Your task to perform on an android device: What is the news today? Image 0: 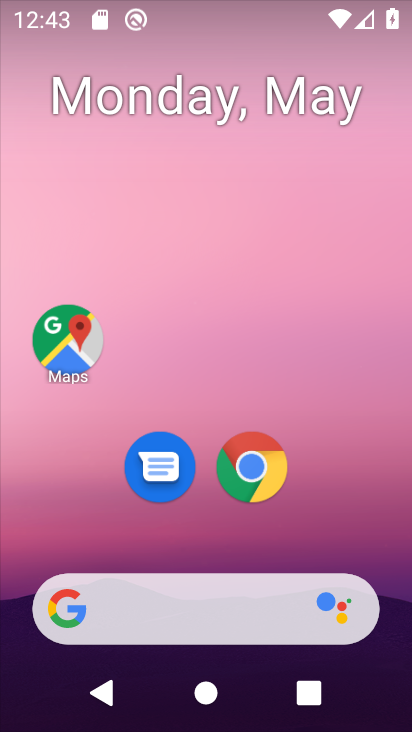
Step 0: drag from (197, 512) to (18, 639)
Your task to perform on an android device: What is the news today? Image 1: 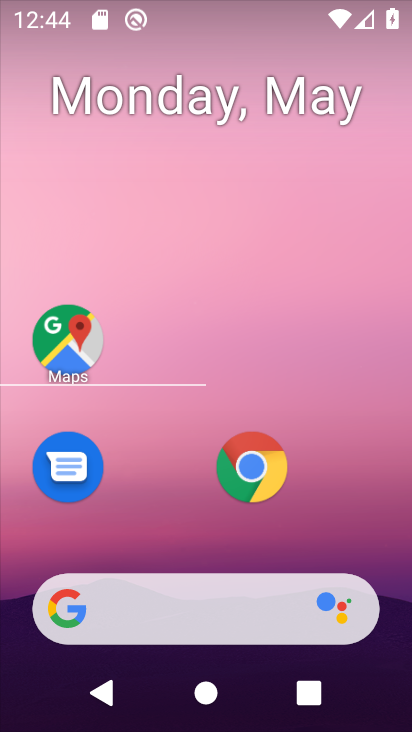
Step 1: drag from (205, 484) to (233, 242)
Your task to perform on an android device: What is the news today? Image 2: 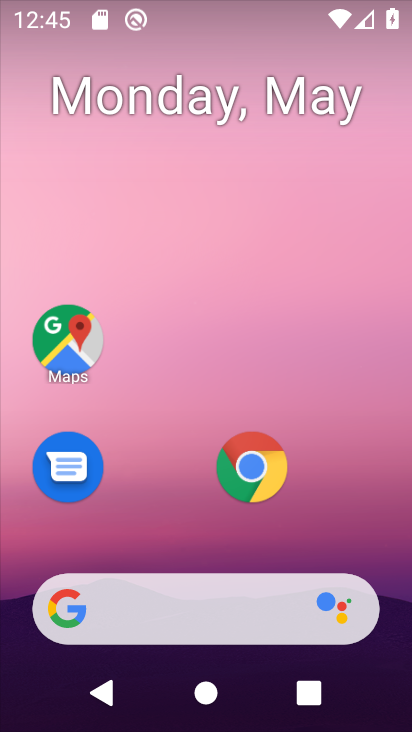
Step 2: drag from (209, 514) to (241, 136)
Your task to perform on an android device: What is the news today? Image 3: 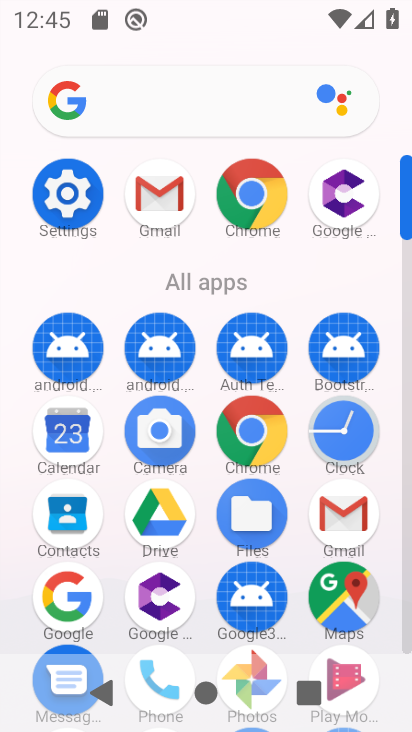
Step 3: click (227, 83)
Your task to perform on an android device: What is the news today? Image 4: 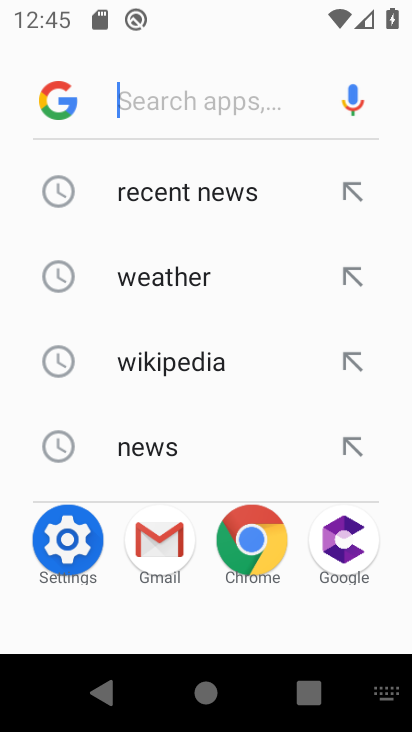
Step 4: type "news today"
Your task to perform on an android device: What is the news today? Image 5: 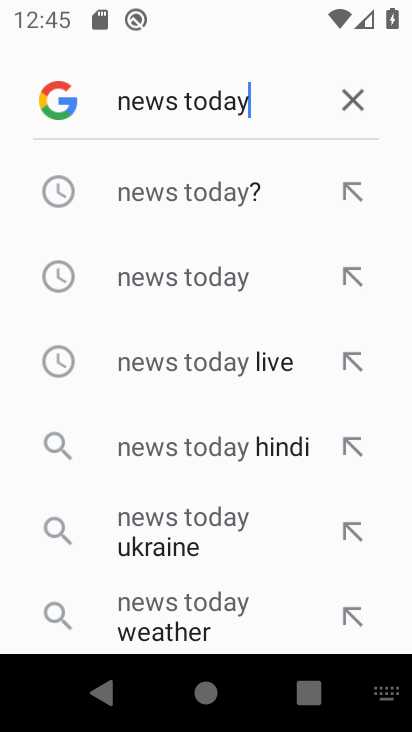
Step 5: click (155, 184)
Your task to perform on an android device: What is the news today? Image 6: 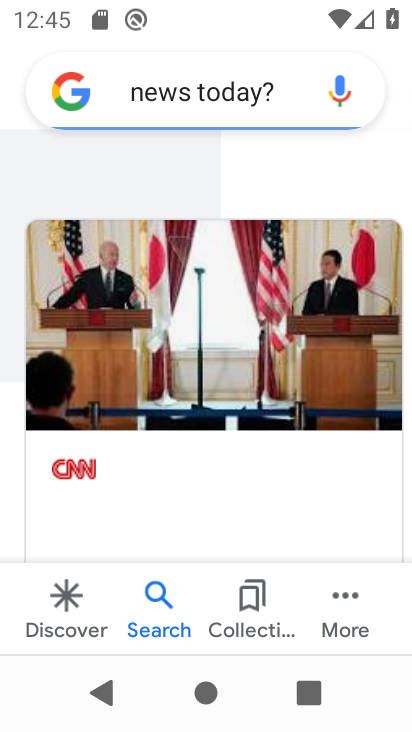
Step 6: drag from (203, 456) to (385, 40)
Your task to perform on an android device: What is the news today? Image 7: 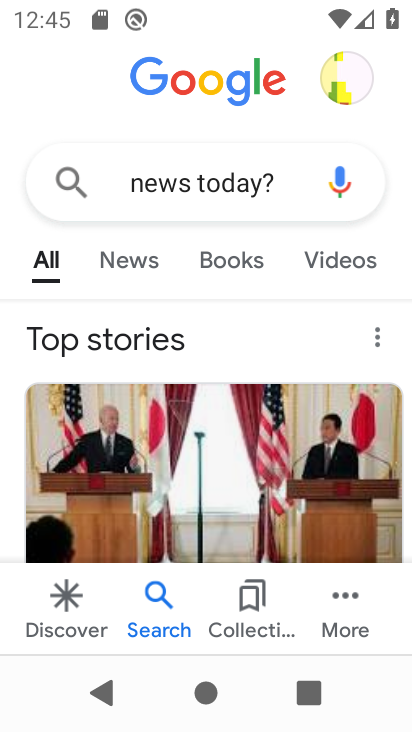
Step 7: drag from (216, 452) to (371, 112)
Your task to perform on an android device: What is the news today? Image 8: 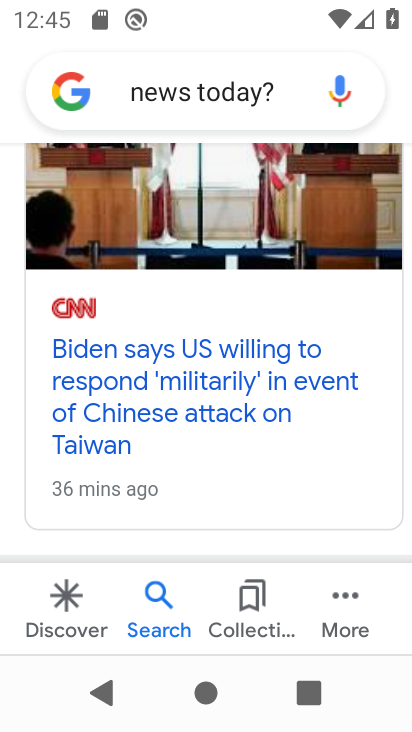
Step 8: drag from (171, 517) to (236, 115)
Your task to perform on an android device: What is the news today? Image 9: 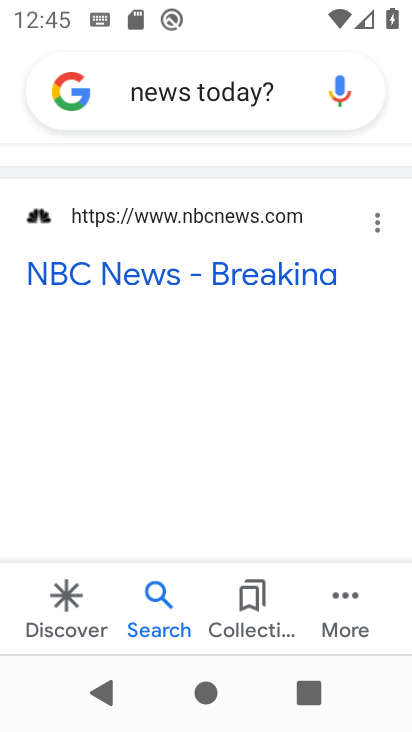
Step 9: drag from (247, 573) to (237, 192)
Your task to perform on an android device: What is the news today? Image 10: 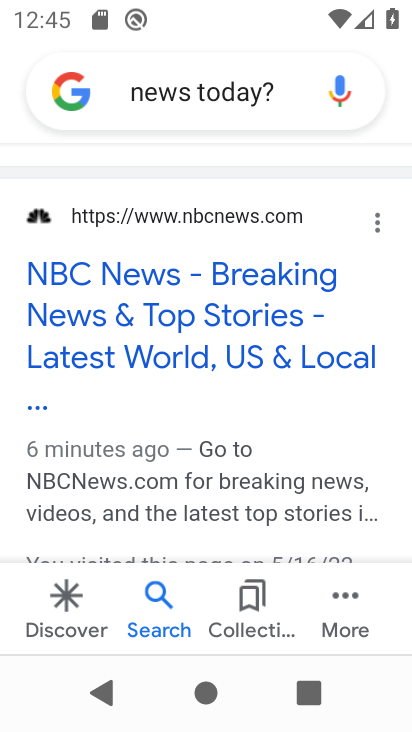
Step 10: drag from (238, 481) to (294, 297)
Your task to perform on an android device: What is the news today? Image 11: 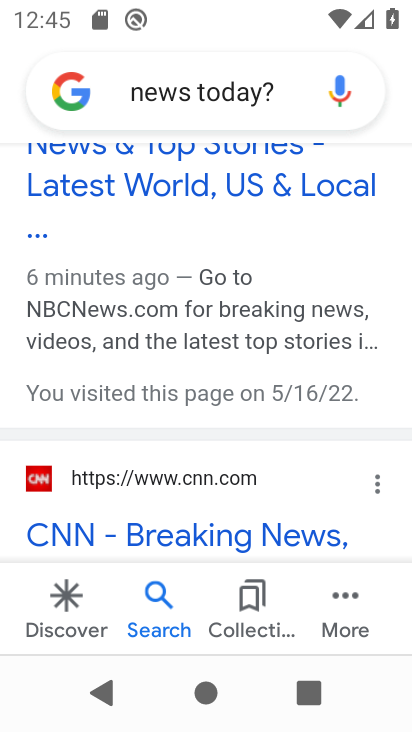
Step 11: drag from (215, 251) to (291, 538)
Your task to perform on an android device: What is the news today? Image 12: 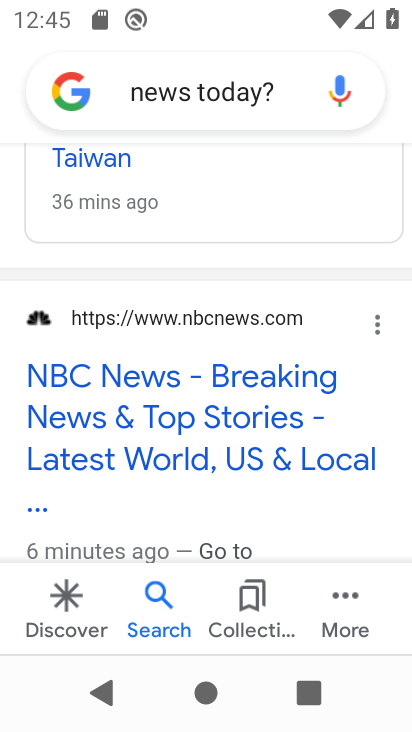
Step 12: click (173, 399)
Your task to perform on an android device: What is the news today? Image 13: 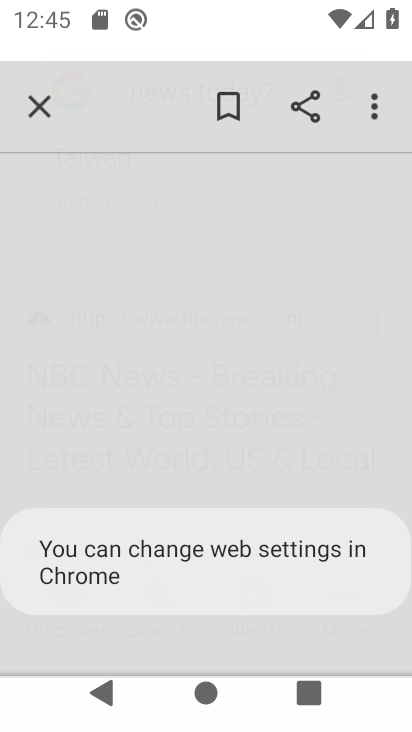
Step 13: task complete